Your task to perform on an android device: Open Youtube and go to the subscriptions tab Image 0: 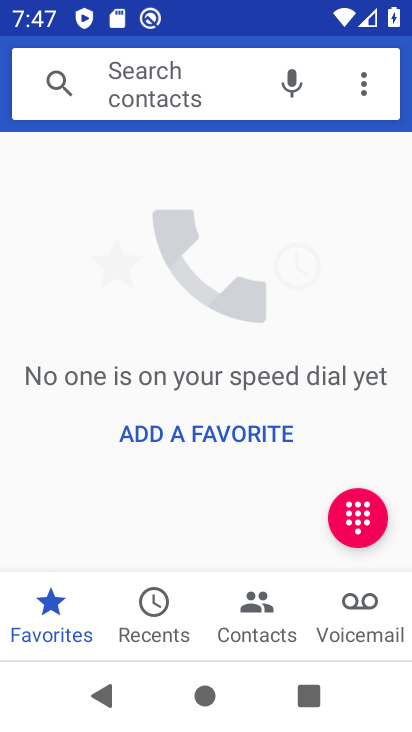
Step 0: press home button
Your task to perform on an android device: Open Youtube and go to the subscriptions tab Image 1: 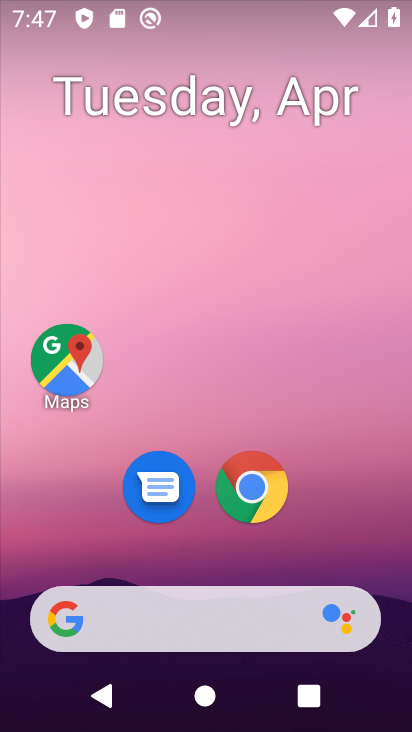
Step 1: drag from (162, 585) to (195, 270)
Your task to perform on an android device: Open Youtube and go to the subscriptions tab Image 2: 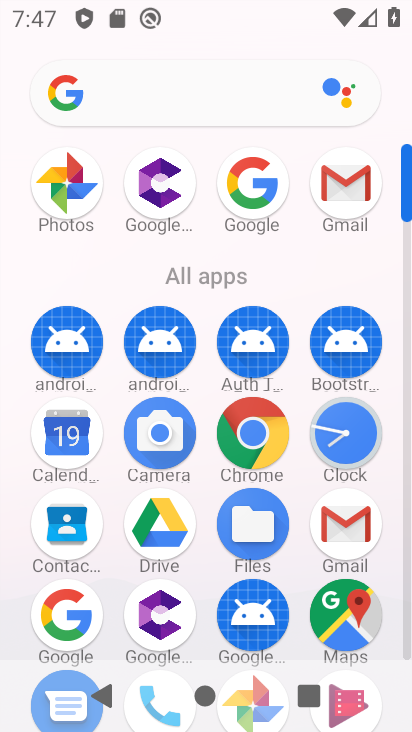
Step 2: drag from (210, 599) to (240, 282)
Your task to perform on an android device: Open Youtube and go to the subscriptions tab Image 3: 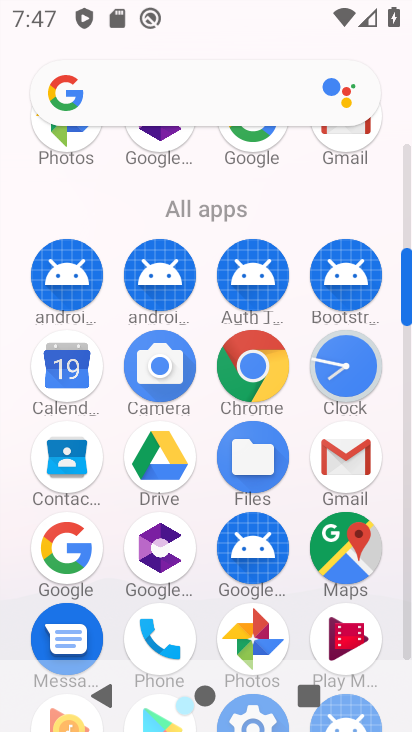
Step 3: drag from (192, 604) to (227, 271)
Your task to perform on an android device: Open Youtube and go to the subscriptions tab Image 4: 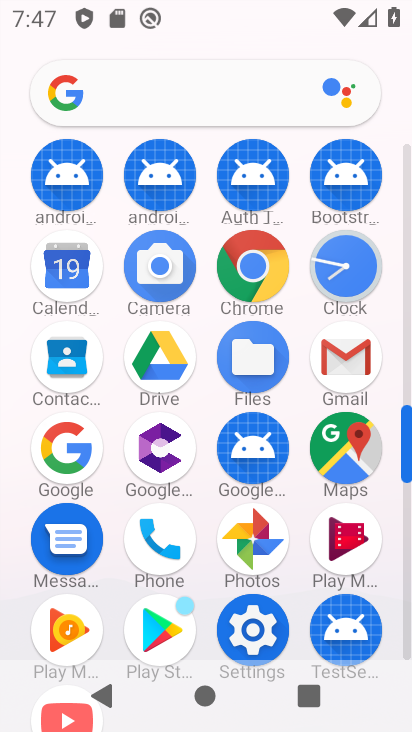
Step 4: drag from (189, 587) to (230, 231)
Your task to perform on an android device: Open Youtube and go to the subscriptions tab Image 5: 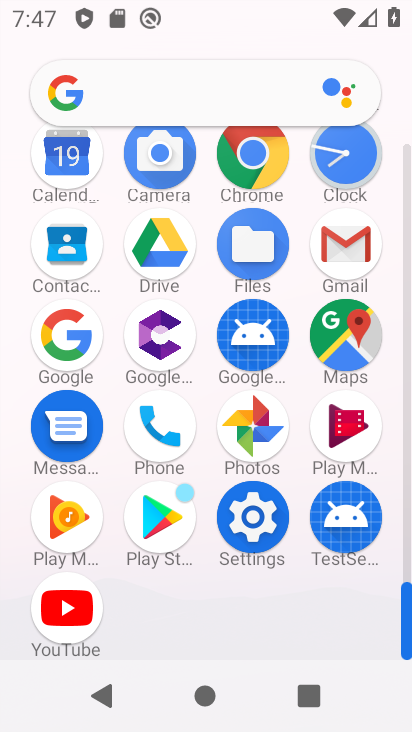
Step 5: click (79, 613)
Your task to perform on an android device: Open Youtube and go to the subscriptions tab Image 6: 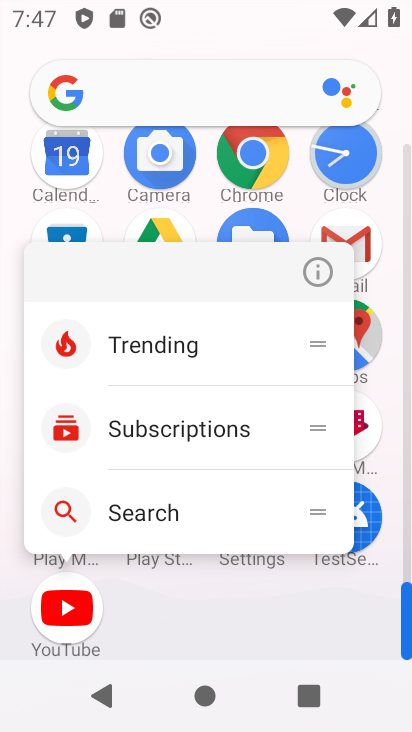
Step 6: click (76, 606)
Your task to perform on an android device: Open Youtube and go to the subscriptions tab Image 7: 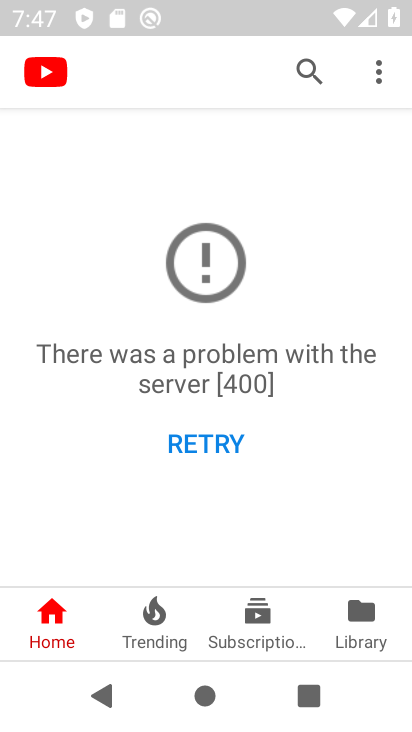
Step 7: click (232, 604)
Your task to perform on an android device: Open Youtube and go to the subscriptions tab Image 8: 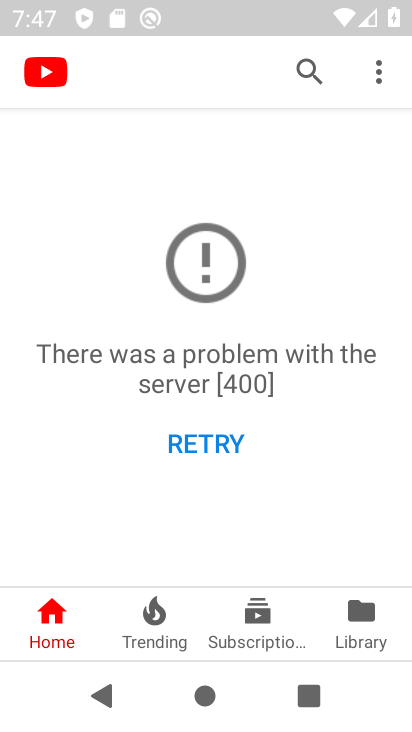
Step 8: click (247, 620)
Your task to perform on an android device: Open Youtube and go to the subscriptions tab Image 9: 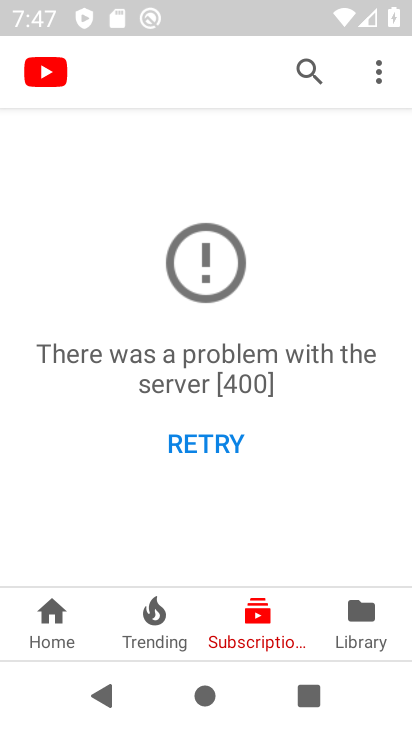
Step 9: task complete